Your task to perform on an android device: Open the calendar app, open the side menu, and click the "Day" option Image 0: 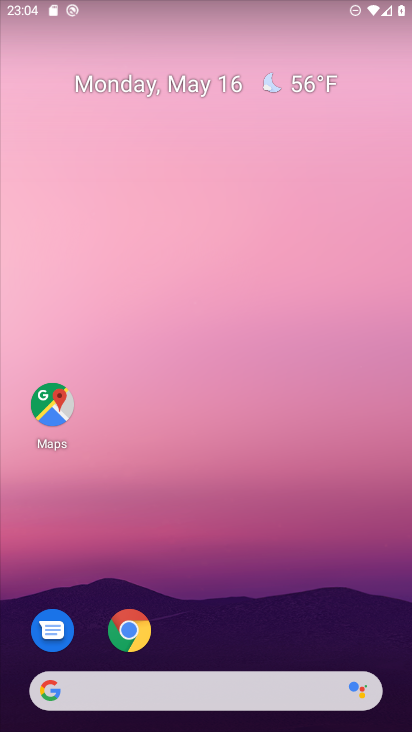
Step 0: drag from (301, 570) to (365, 59)
Your task to perform on an android device: Open the calendar app, open the side menu, and click the "Day" option Image 1: 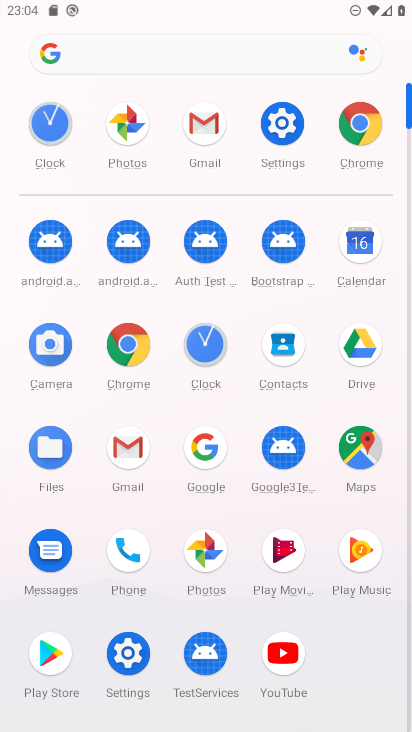
Step 1: click (363, 233)
Your task to perform on an android device: Open the calendar app, open the side menu, and click the "Day" option Image 2: 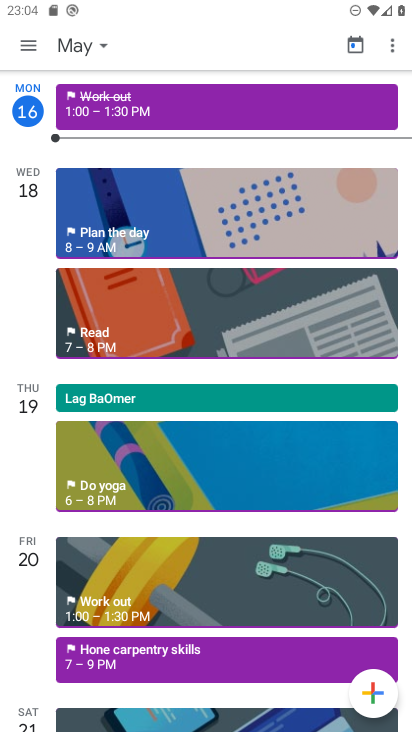
Step 2: click (28, 43)
Your task to perform on an android device: Open the calendar app, open the side menu, and click the "Day" option Image 3: 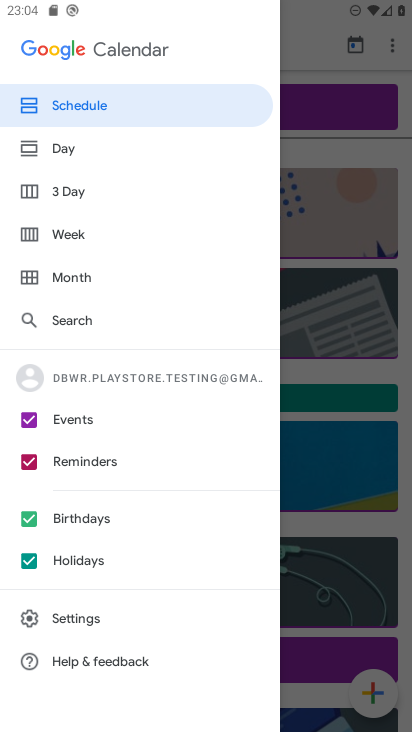
Step 3: click (60, 137)
Your task to perform on an android device: Open the calendar app, open the side menu, and click the "Day" option Image 4: 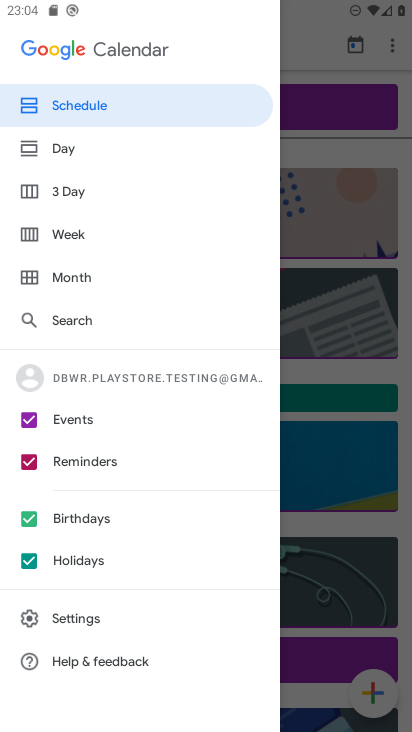
Step 4: click (31, 146)
Your task to perform on an android device: Open the calendar app, open the side menu, and click the "Day" option Image 5: 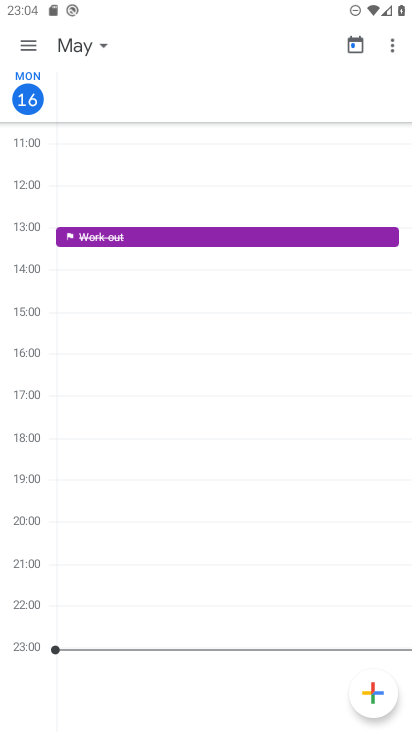
Step 5: task complete